Your task to perform on an android device: Go to Google Image 0: 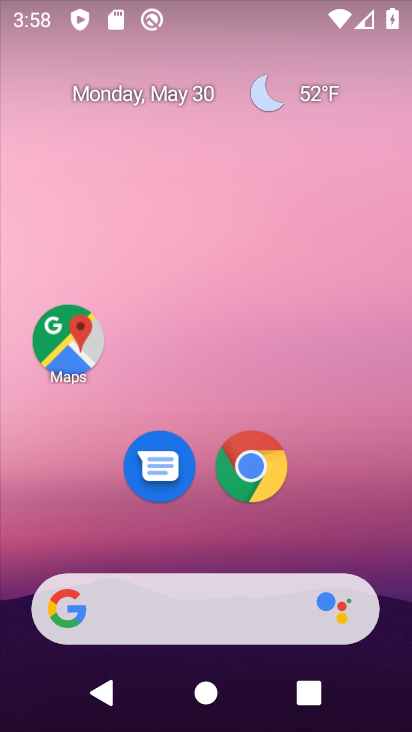
Step 0: drag from (157, 630) to (183, 86)
Your task to perform on an android device: Go to Google Image 1: 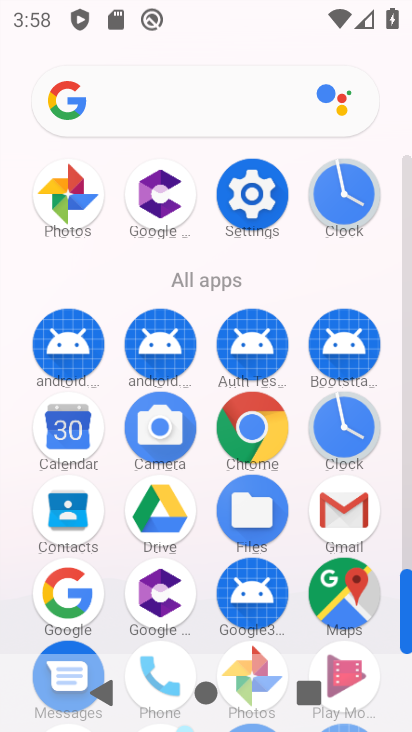
Step 1: click (74, 597)
Your task to perform on an android device: Go to Google Image 2: 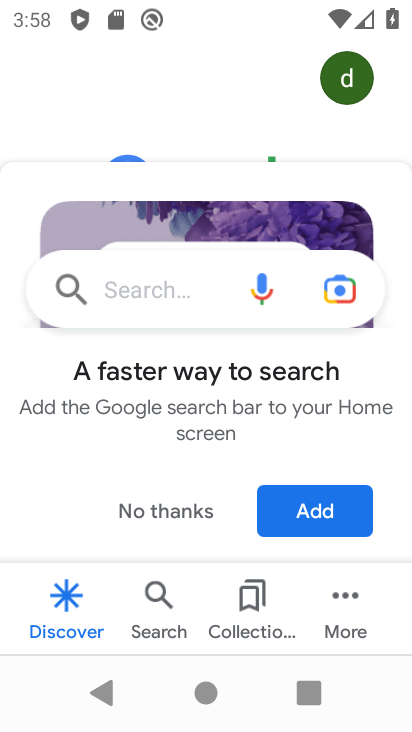
Step 2: task complete